Your task to perform on an android device: open device folders in google photos Image 0: 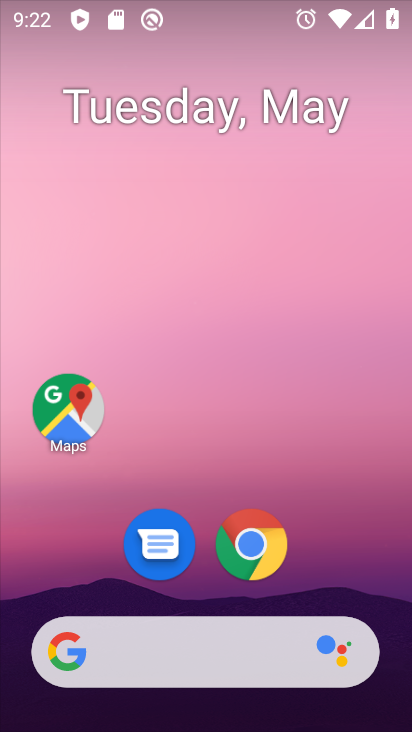
Step 0: drag from (326, 548) to (298, 246)
Your task to perform on an android device: open device folders in google photos Image 1: 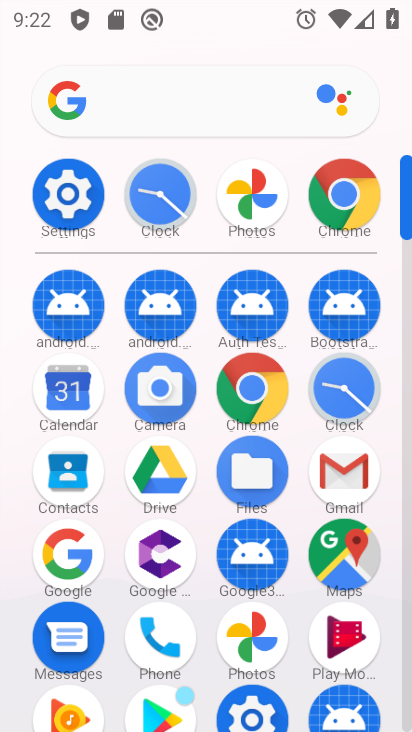
Step 1: click (262, 639)
Your task to perform on an android device: open device folders in google photos Image 2: 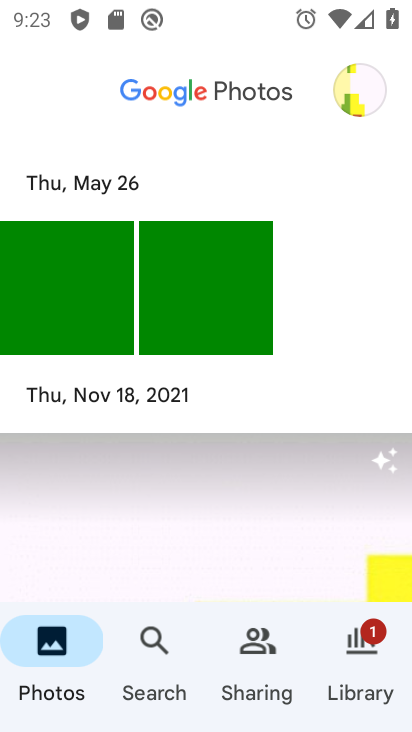
Step 2: click (364, 102)
Your task to perform on an android device: open device folders in google photos Image 3: 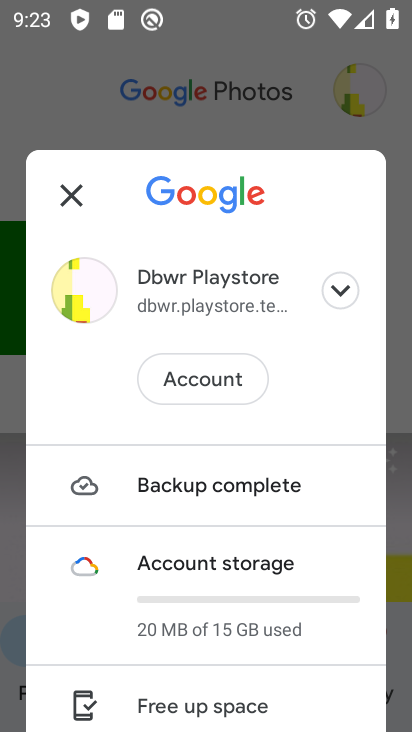
Step 3: drag from (256, 654) to (260, 392)
Your task to perform on an android device: open device folders in google photos Image 4: 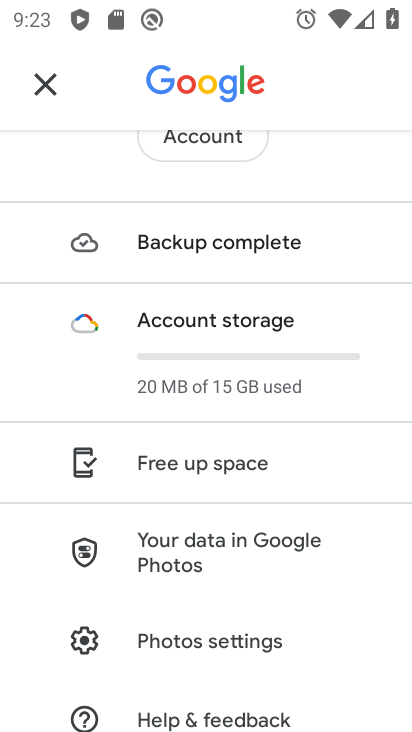
Step 4: click (240, 646)
Your task to perform on an android device: open device folders in google photos Image 5: 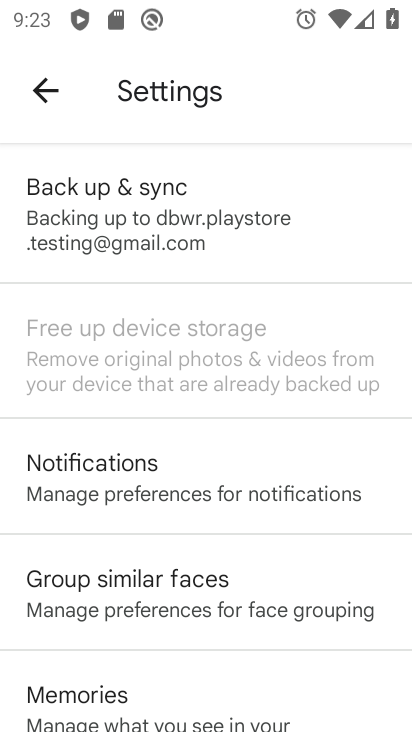
Step 5: task complete